Your task to perform on an android device: Go to Maps Image 0: 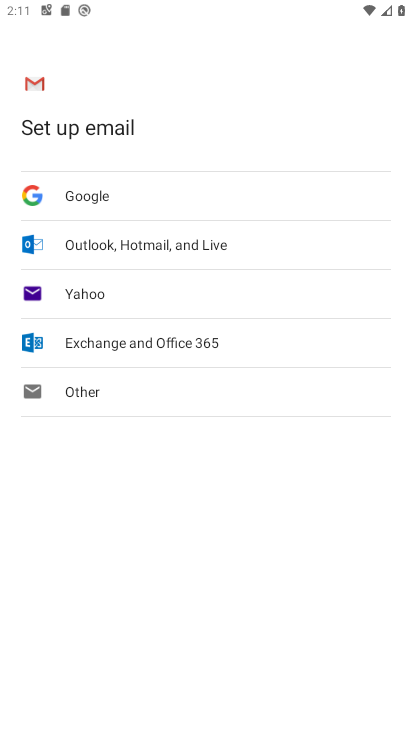
Step 0: press home button
Your task to perform on an android device: Go to Maps Image 1: 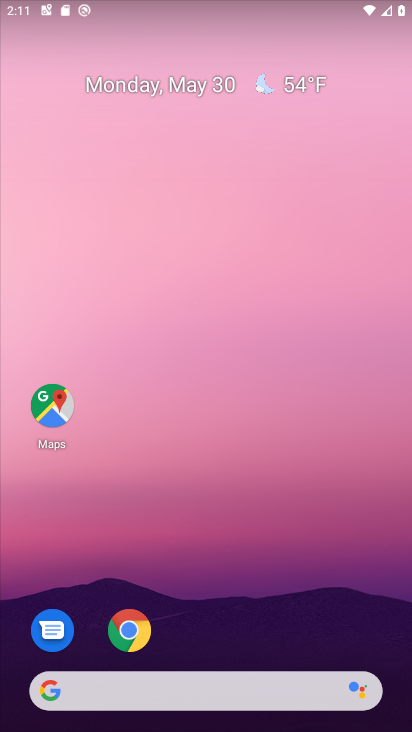
Step 1: click (51, 409)
Your task to perform on an android device: Go to Maps Image 2: 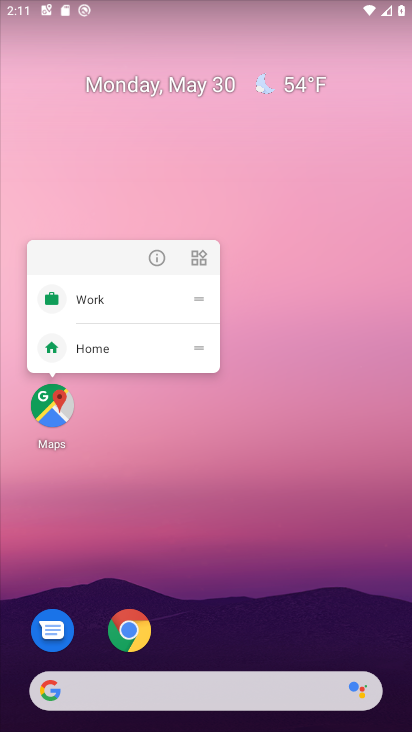
Step 2: click (52, 415)
Your task to perform on an android device: Go to Maps Image 3: 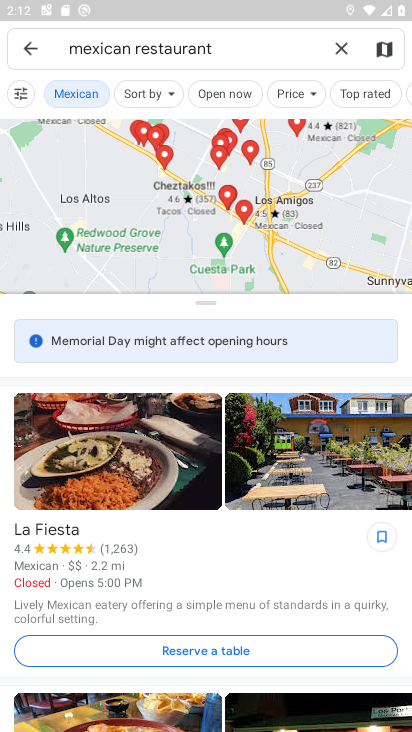
Step 3: click (33, 52)
Your task to perform on an android device: Go to Maps Image 4: 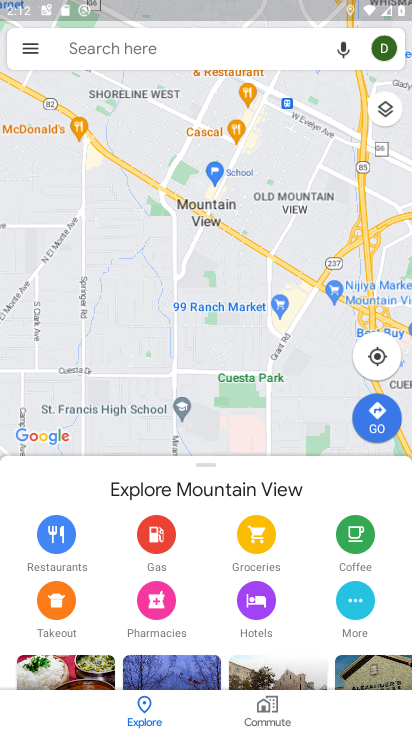
Step 4: task complete